Your task to perform on an android device: Clear all items from cart on amazon. Add razer naga to the cart on amazon Image 0: 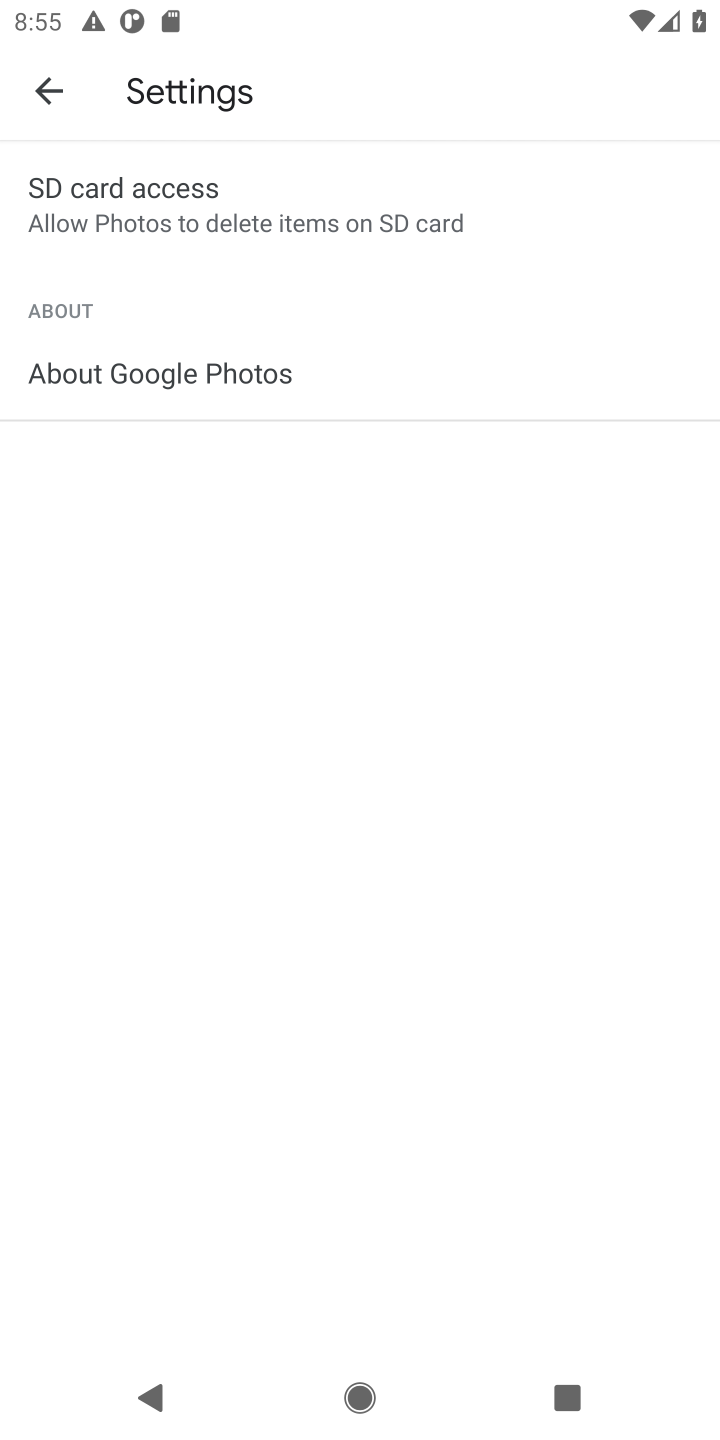
Step 0: press home button
Your task to perform on an android device: Clear all items from cart on amazon. Add razer naga to the cart on amazon Image 1: 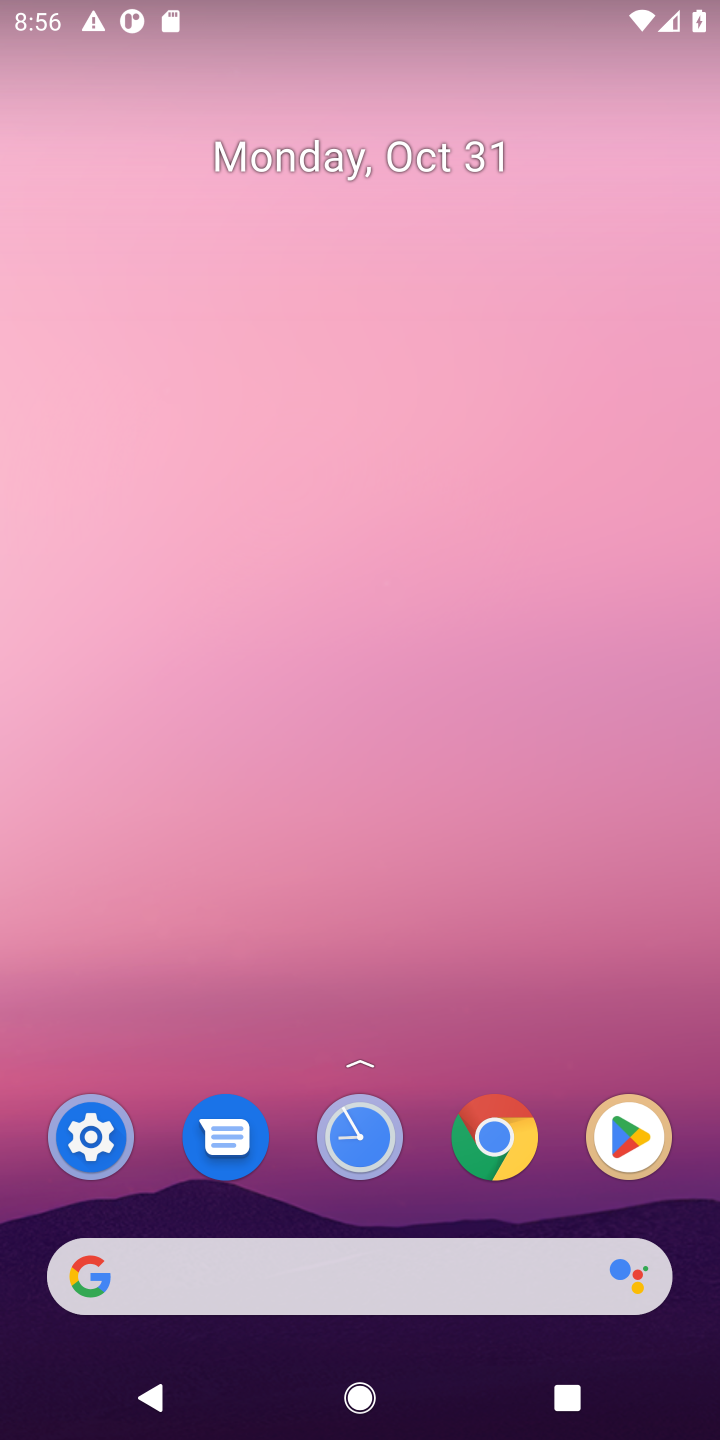
Step 1: click (477, 1131)
Your task to perform on an android device: Clear all items from cart on amazon. Add razer naga to the cart on amazon Image 2: 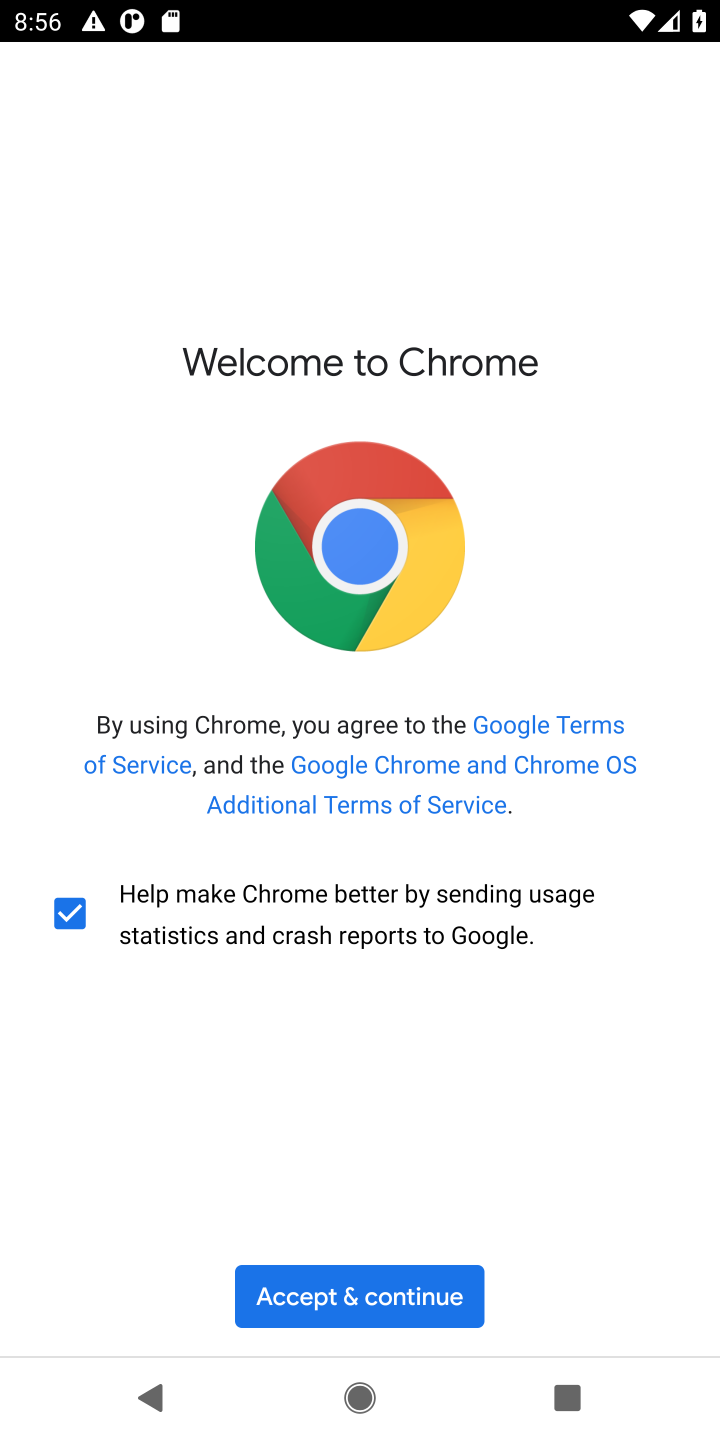
Step 2: click (348, 1312)
Your task to perform on an android device: Clear all items from cart on amazon. Add razer naga to the cart on amazon Image 3: 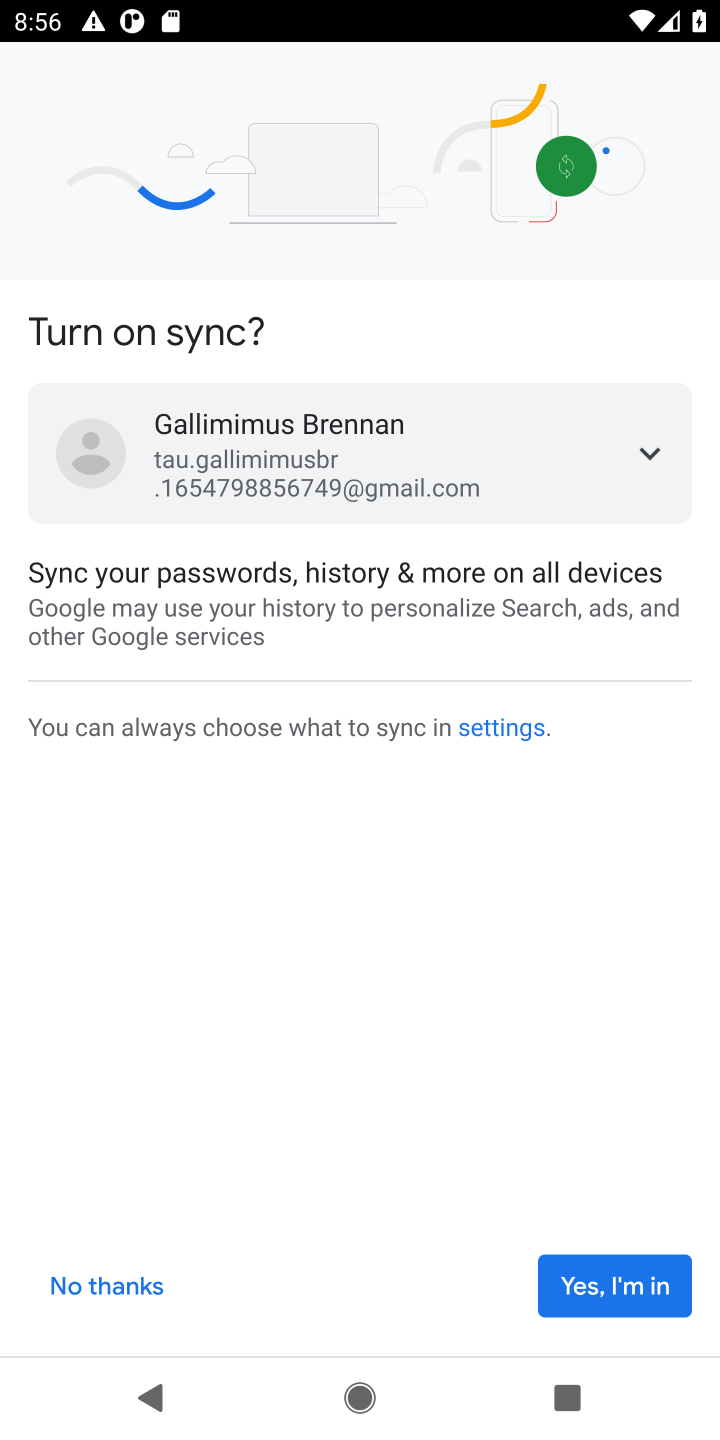
Step 3: click (617, 1292)
Your task to perform on an android device: Clear all items from cart on amazon. Add razer naga to the cart on amazon Image 4: 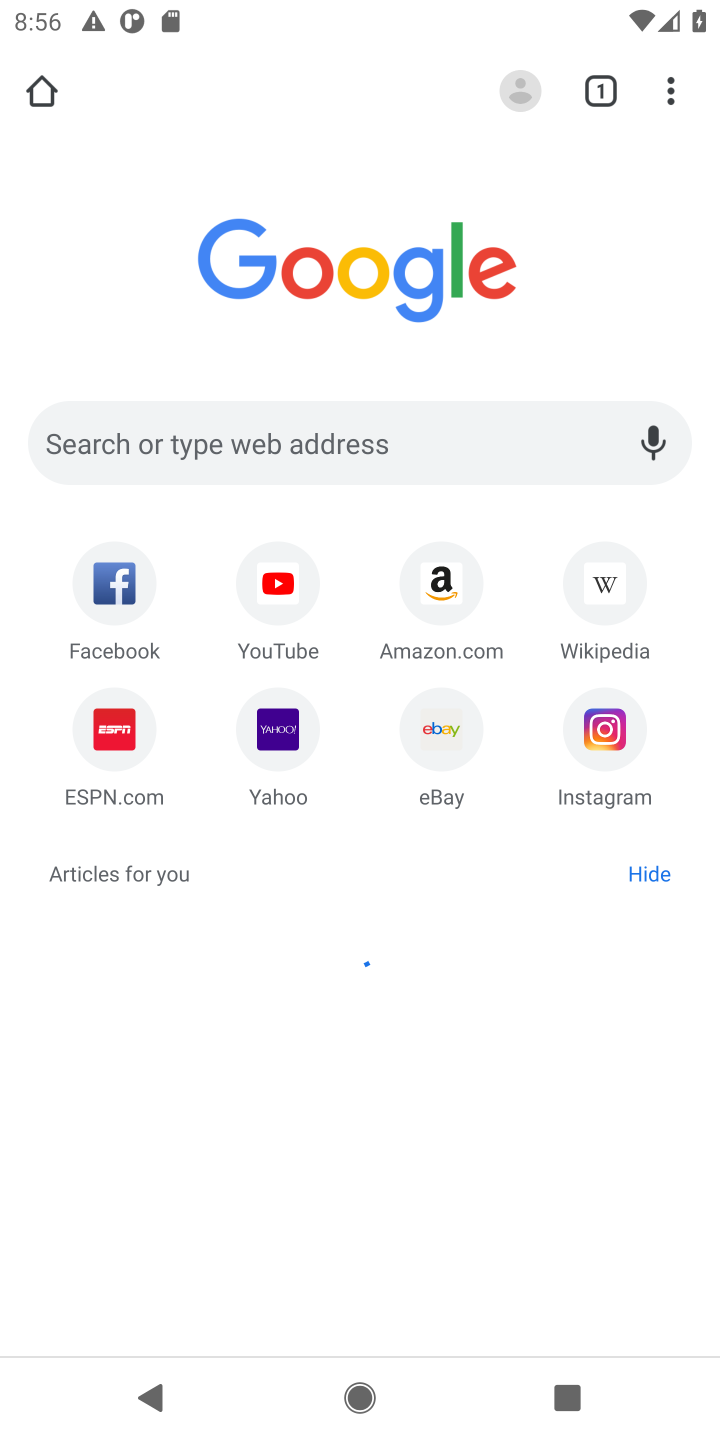
Step 4: click (433, 590)
Your task to perform on an android device: Clear all items from cart on amazon. Add razer naga to the cart on amazon Image 5: 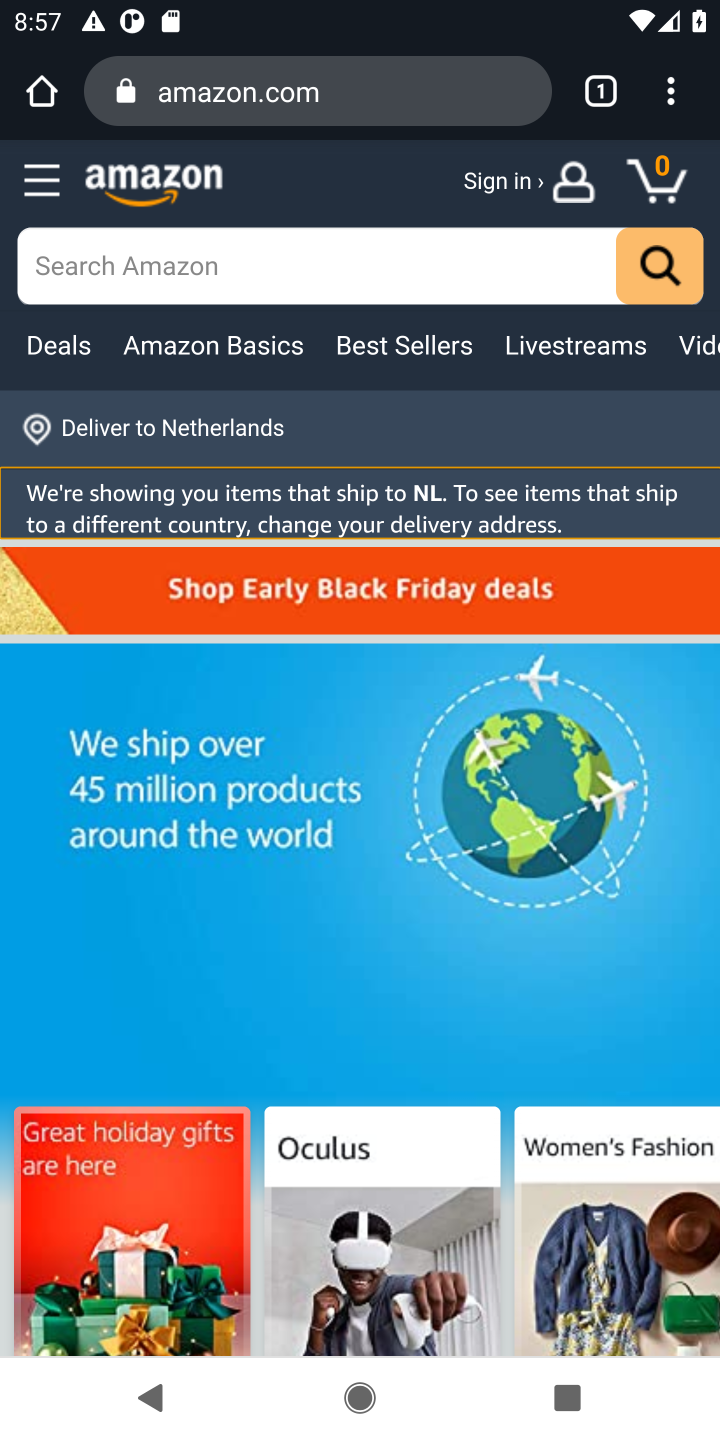
Step 5: click (263, 259)
Your task to perform on an android device: Clear all items from cart on amazon. Add razer naga to the cart on amazon Image 6: 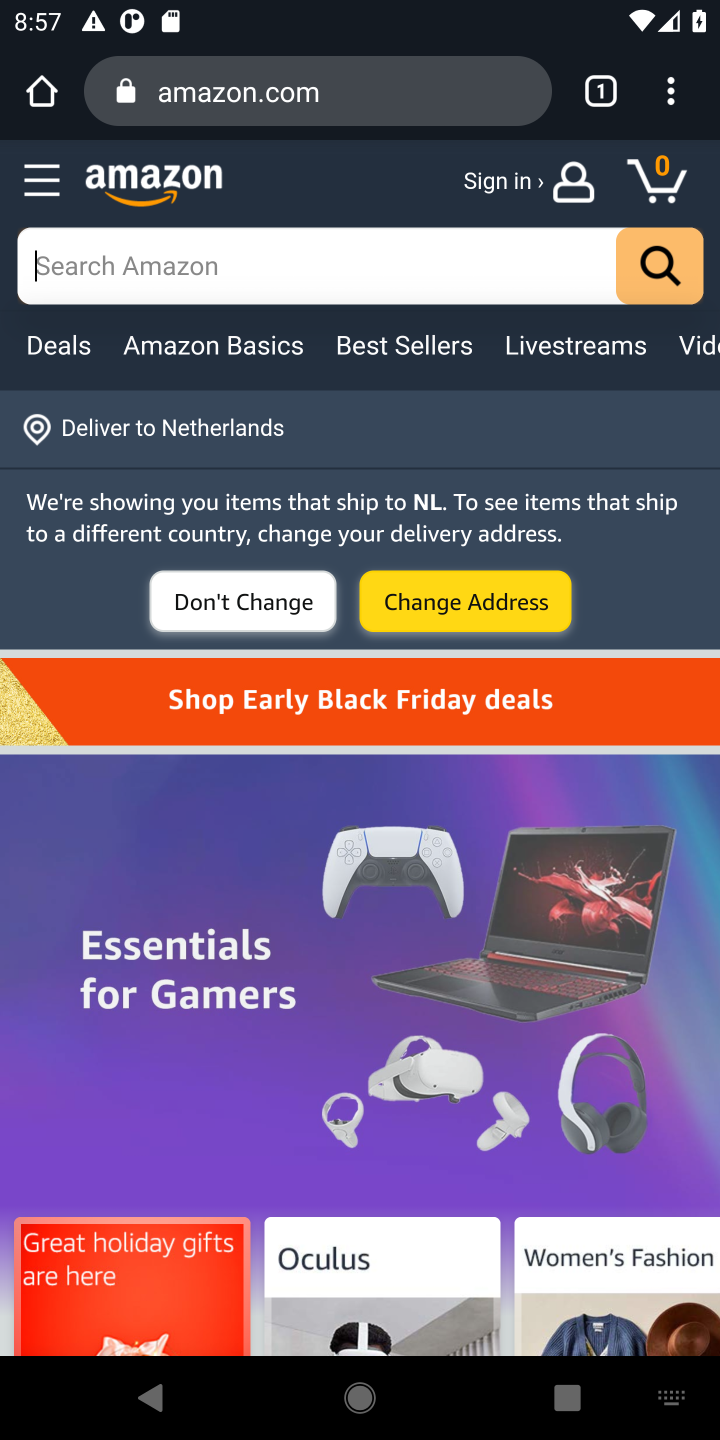
Step 6: click (286, 274)
Your task to perform on an android device: Clear all items from cart on amazon. Add razer naga to the cart on amazon Image 7: 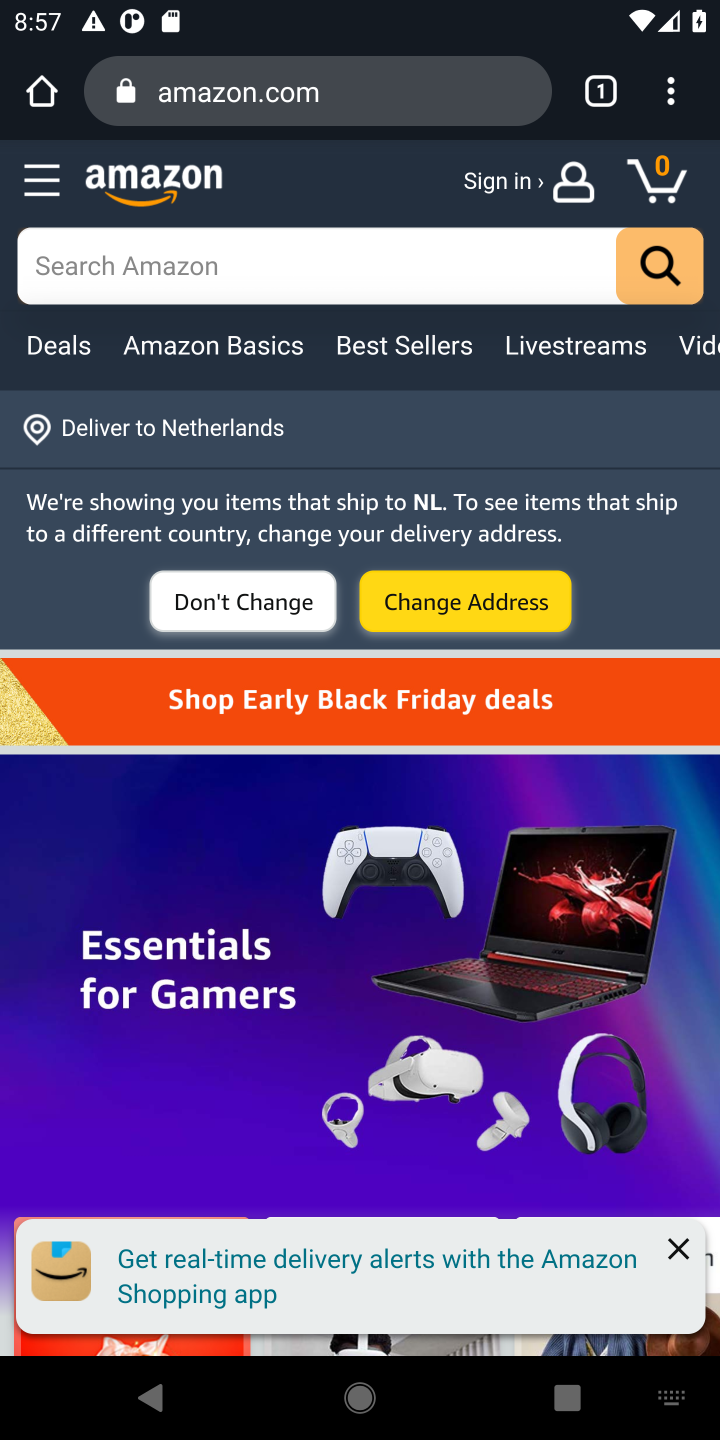
Step 7: type "razer naga"
Your task to perform on an android device: Clear all items from cart on amazon. Add razer naga to the cart on amazon Image 8: 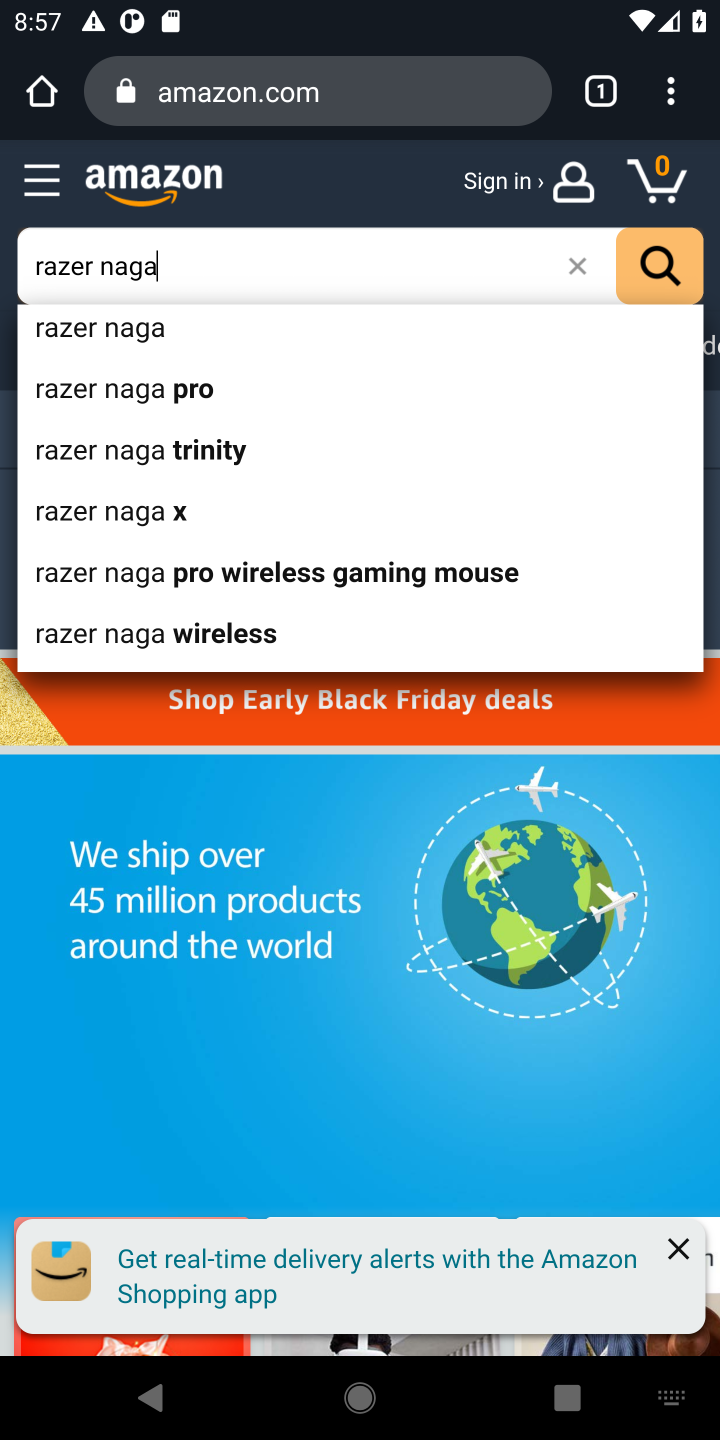
Step 8: click (136, 329)
Your task to perform on an android device: Clear all items from cart on amazon. Add razer naga to the cart on amazon Image 9: 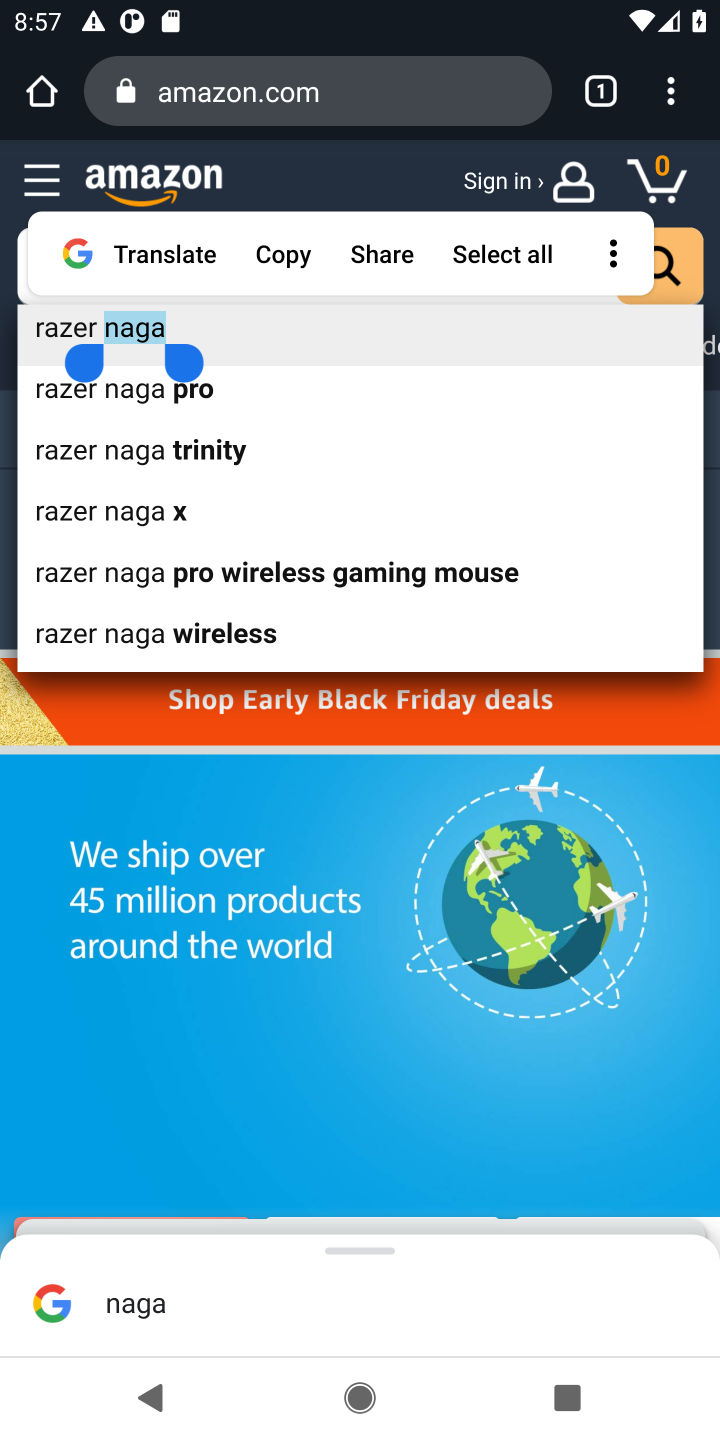
Step 9: click (63, 334)
Your task to perform on an android device: Clear all items from cart on amazon. Add razer naga to the cart on amazon Image 10: 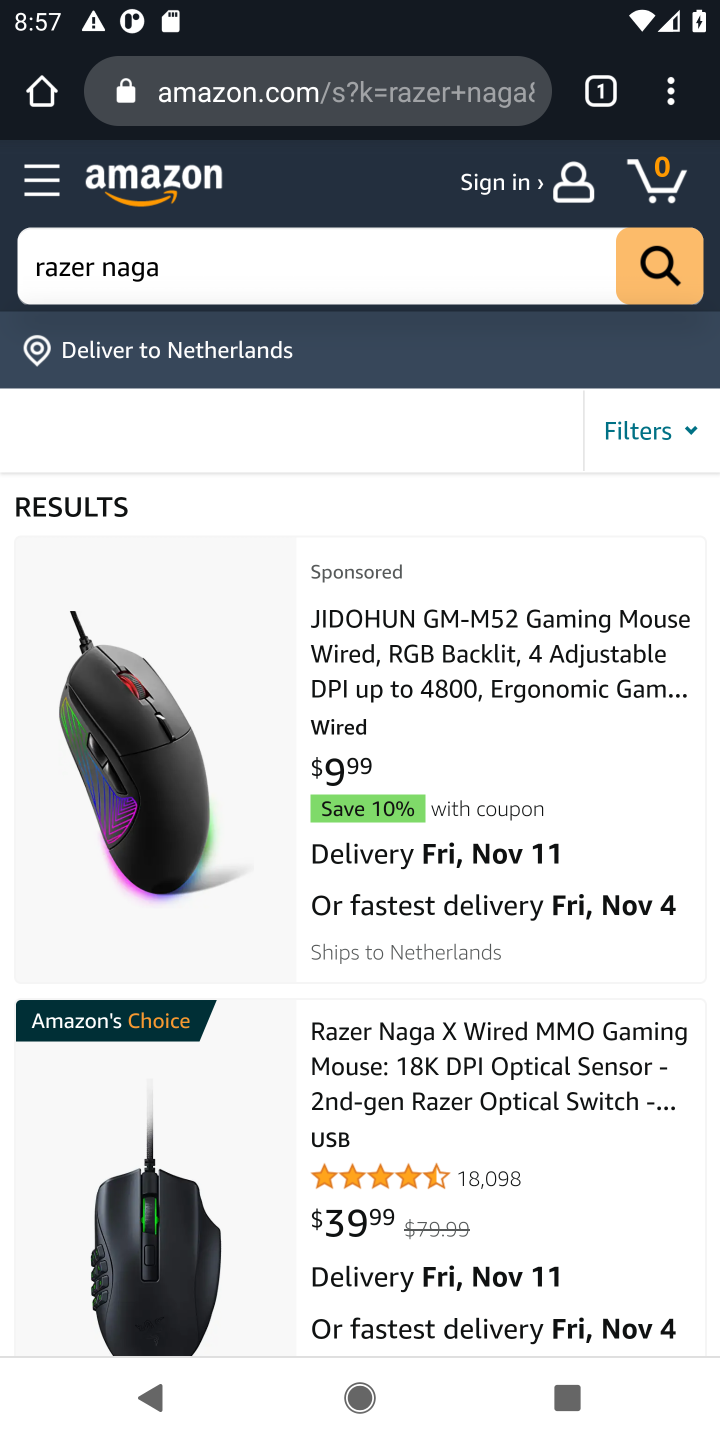
Step 10: click (187, 1254)
Your task to perform on an android device: Clear all items from cart on amazon. Add razer naga to the cart on amazon Image 11: 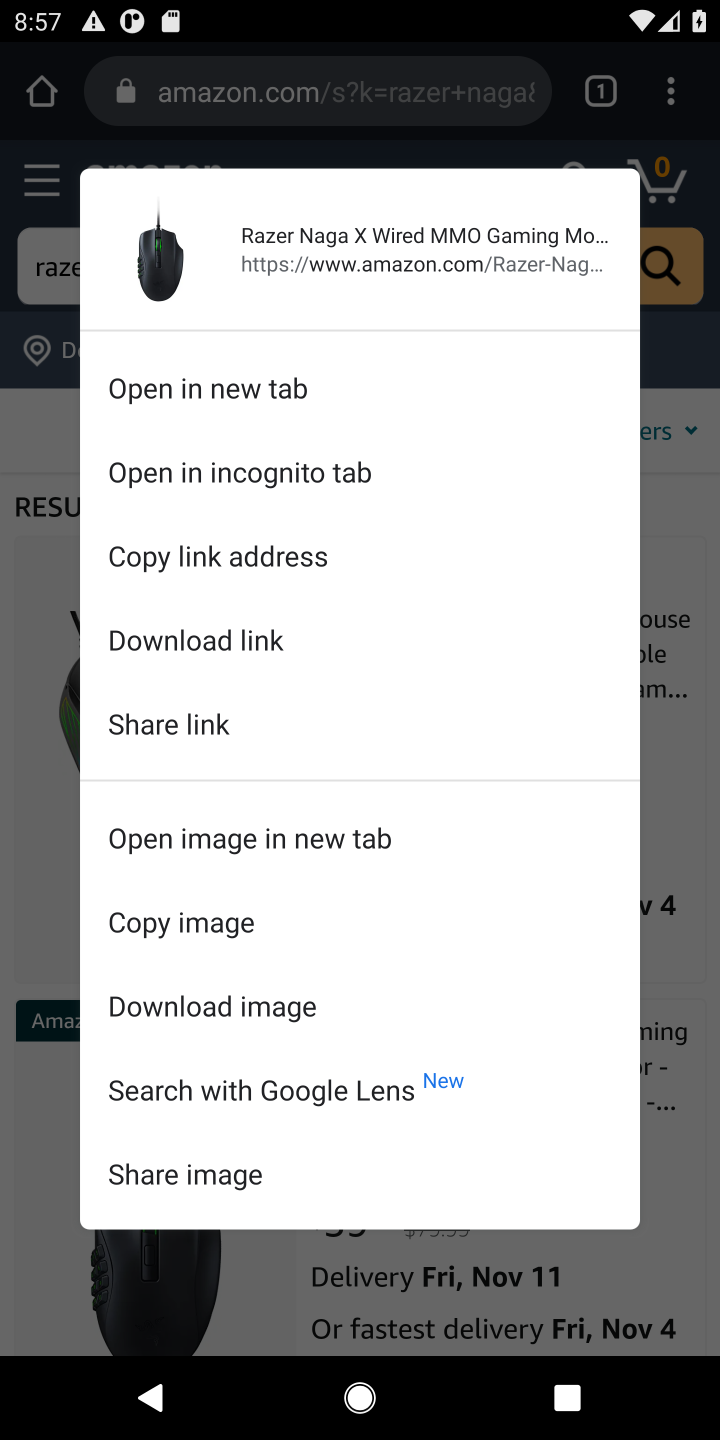
Step 11: click (187, 1254)
Your task to perform on an android device: Clear all items from cart on amazon. Add razer naga to the cart on amazon Image 12: 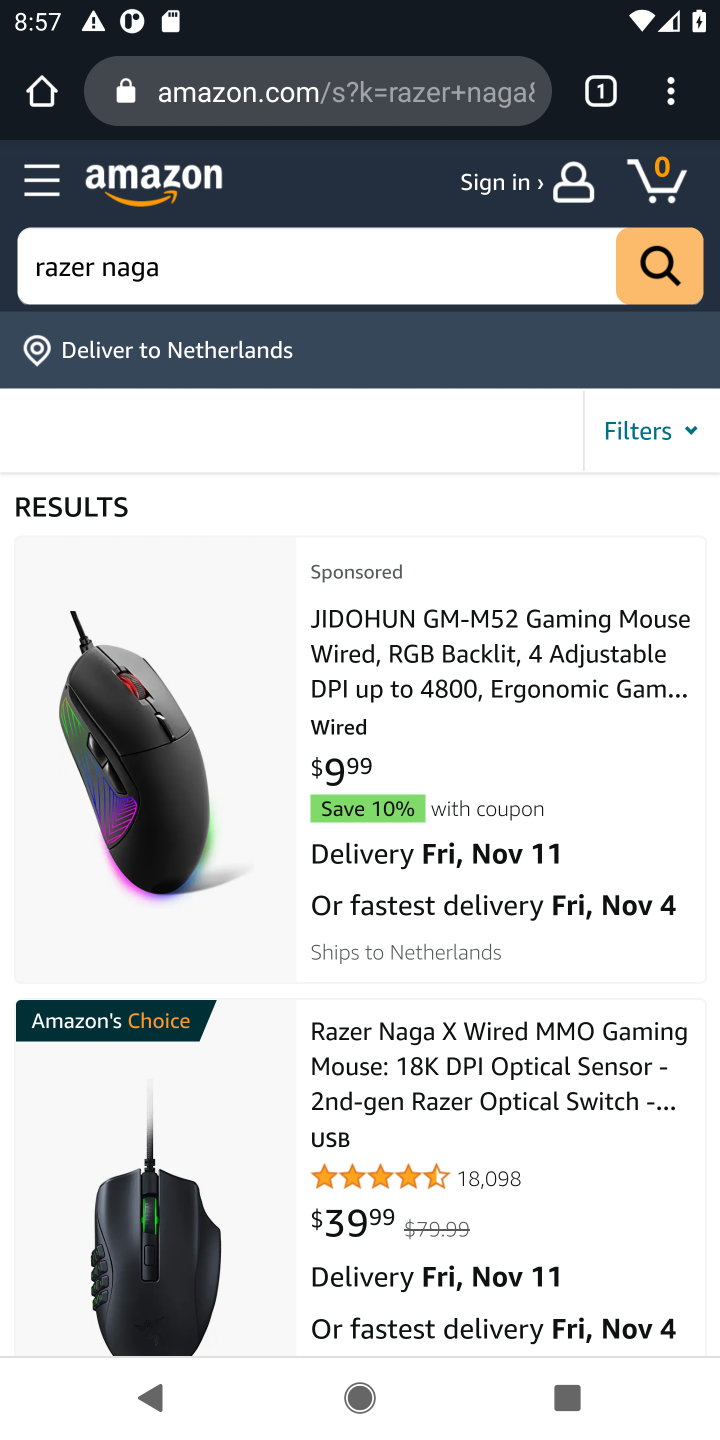
Step 12: drag from (293, 1181) to (289, 641)
Your task to perform on an android device: Clear all items from cart on amazon. Add razer naga to the cart on amazon Image 13: 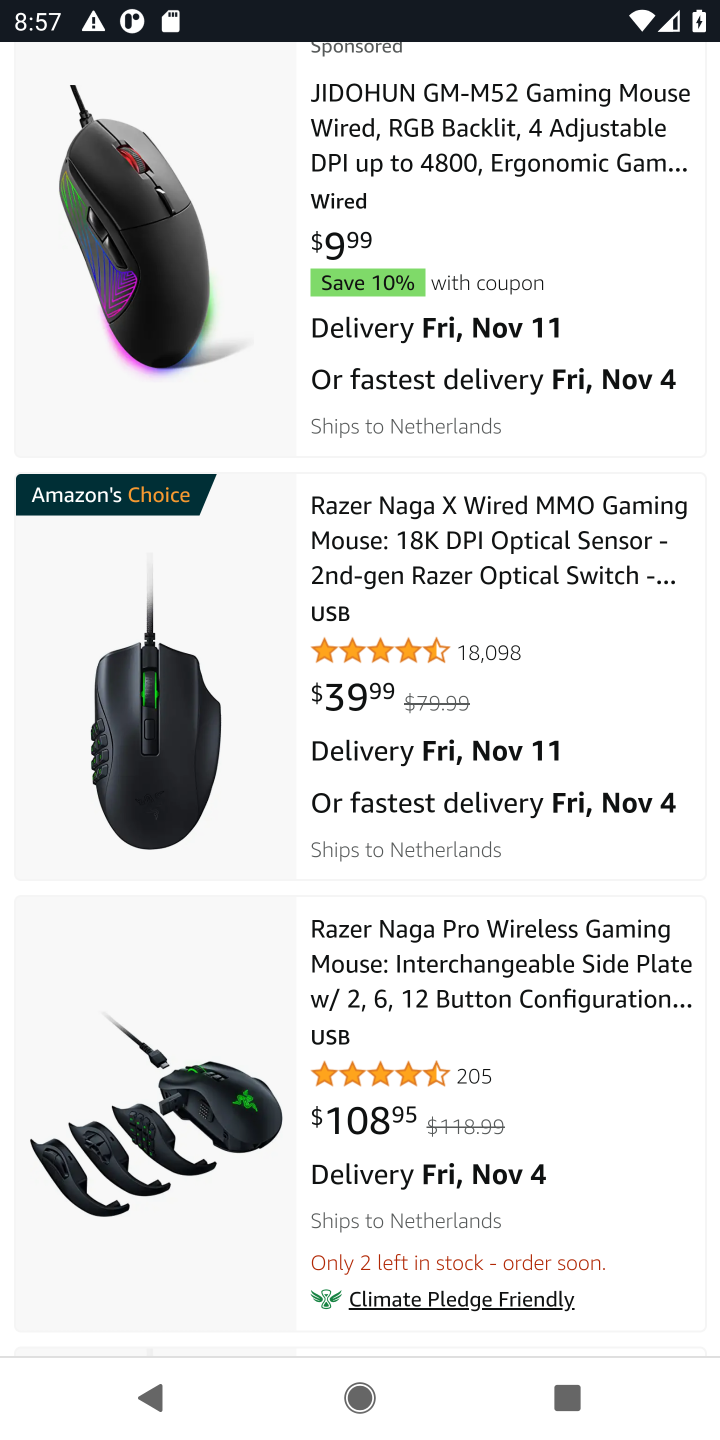
Step 13: click (407, 748)
Your task to perform on an android device: Clear all items from cart on amazon. Add razer naga to the cart on amazon Image 14: 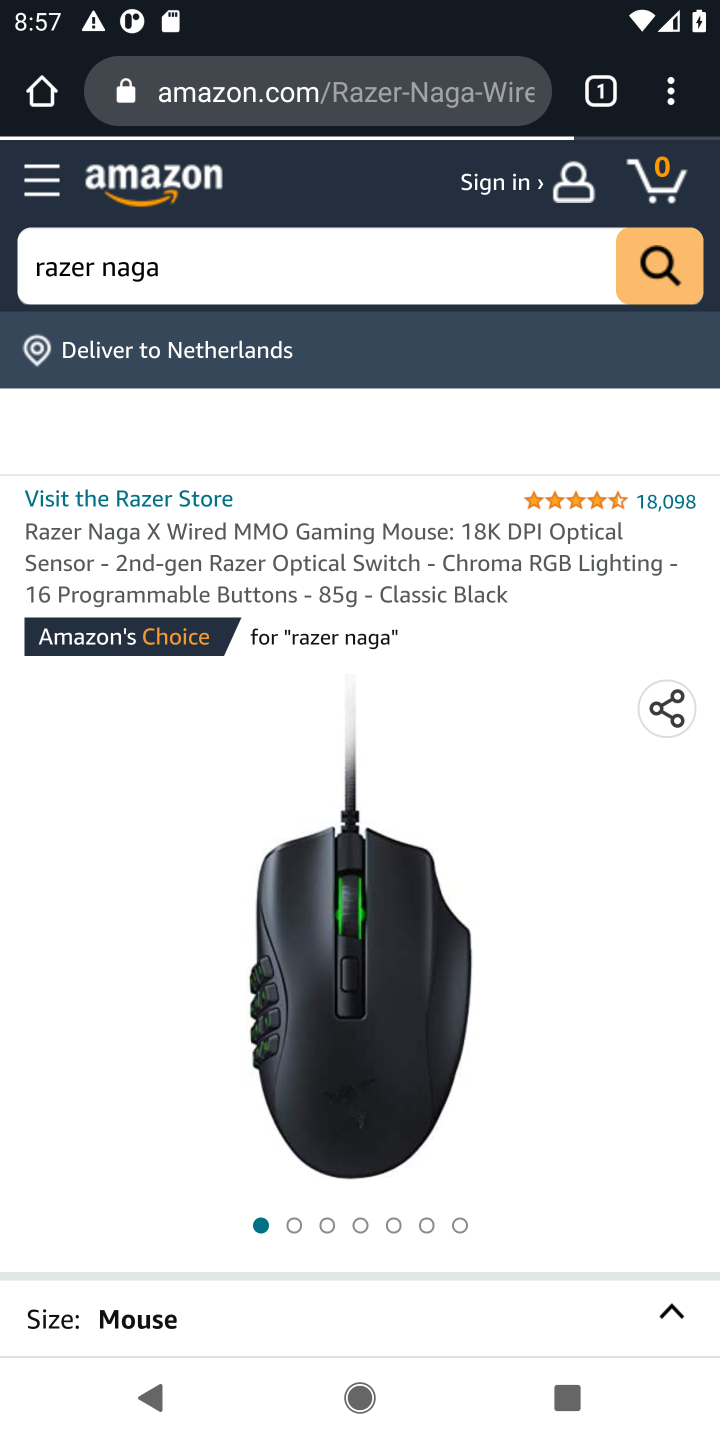
Step 14: drag from (574, 1121) to (549, 420)
Your task to perform on an android device: Clear all items from cart on amazon. Add razer naga to the cart on amazon Image 15: 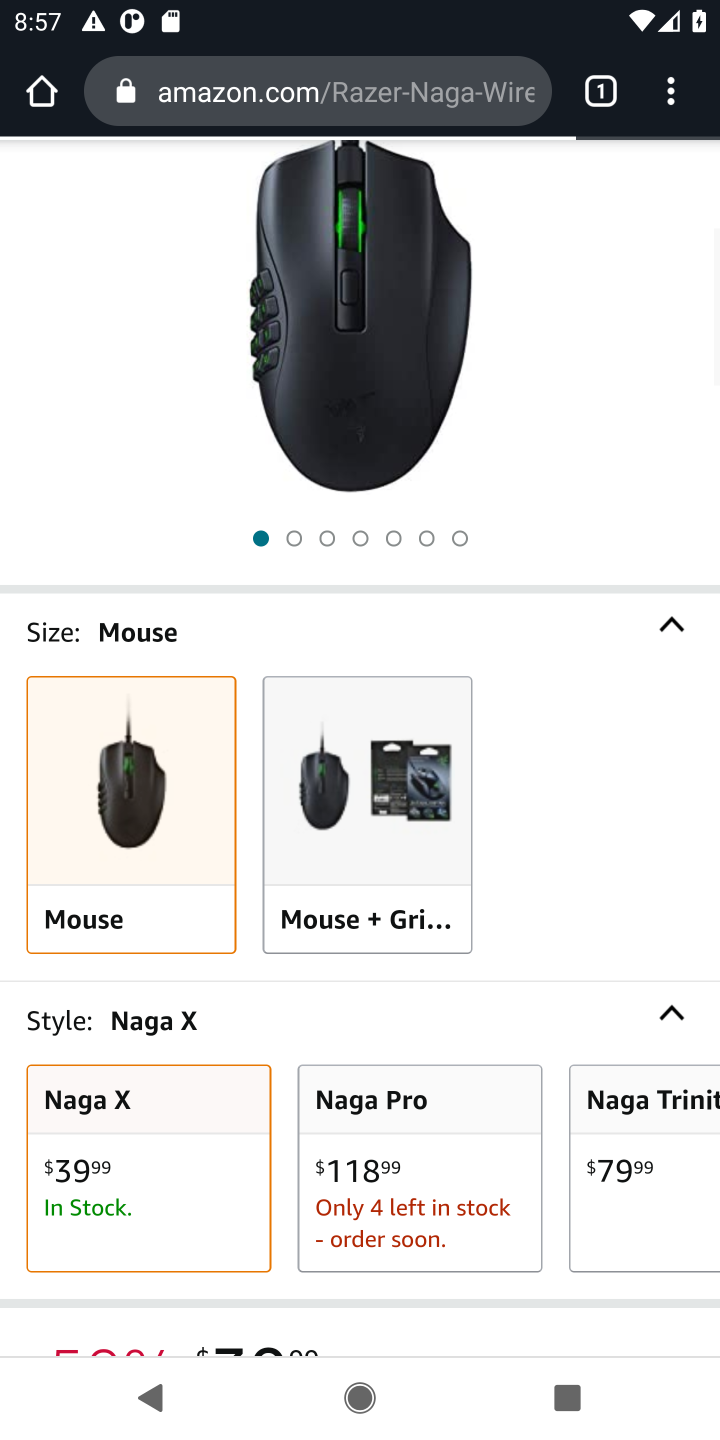
Step 15: drag from (371, 1065) to (398, 494)
Your task to perform on an android device: Clear all items from cart on amazon. Add razer naga to the cart on amazon Image 16: 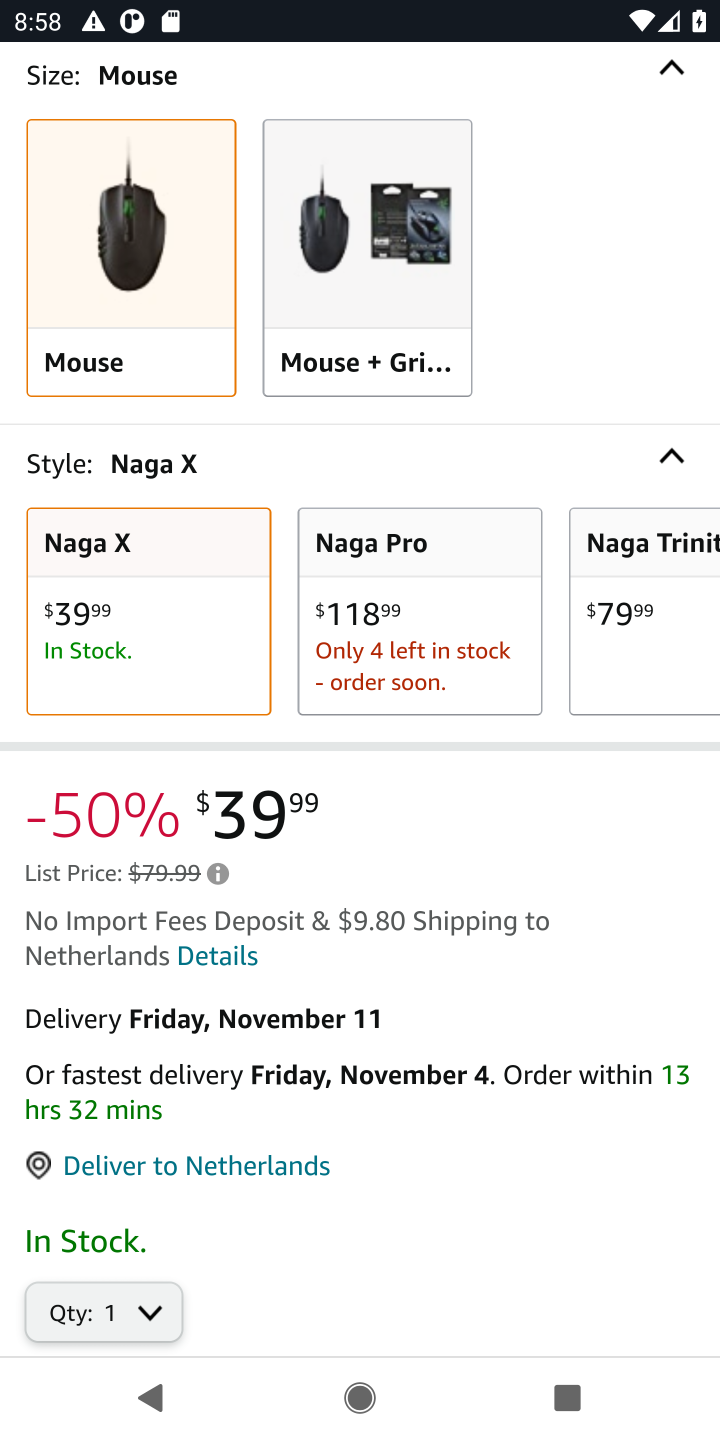
Step 16: drag from (351, 1116) to (361, 530)
Your task to perform on an android device: Clear all items from cart on amazon. Add razer naga to the cart on amazon Image 17: 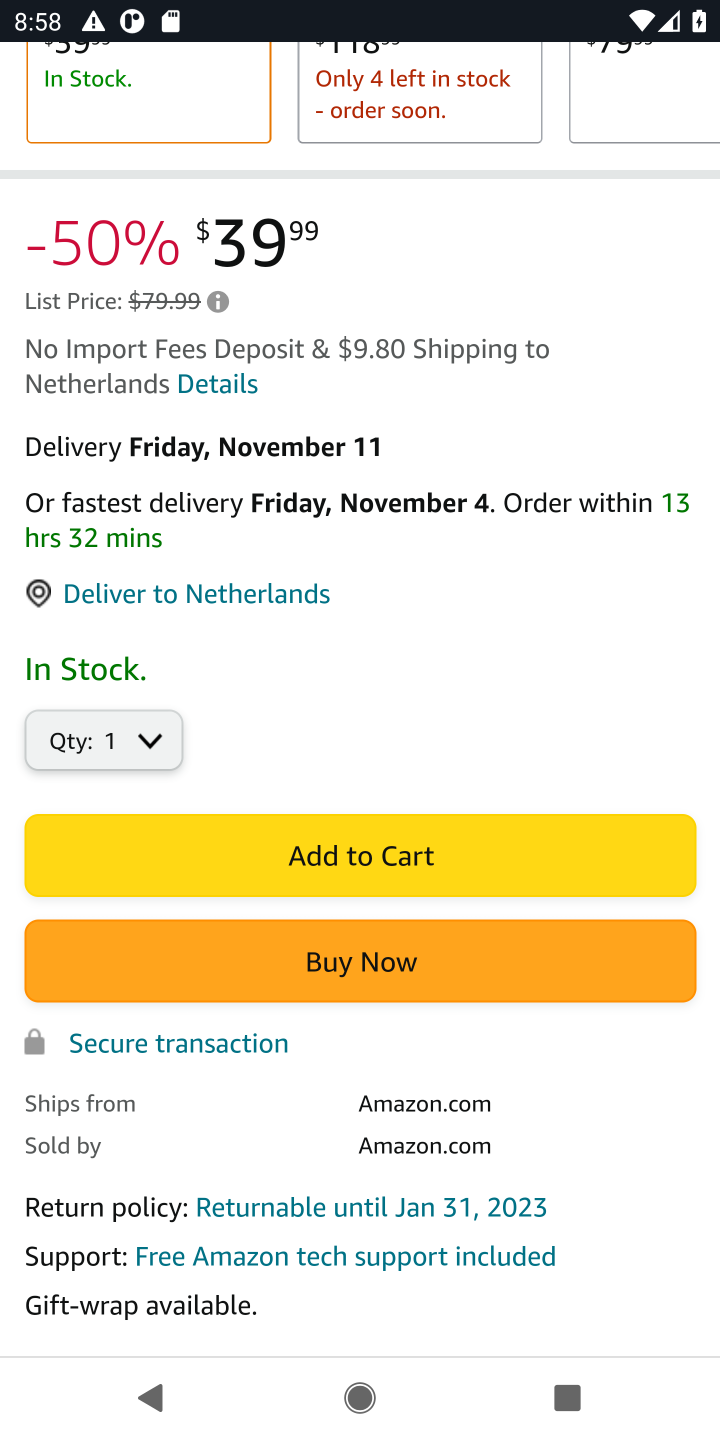
Step 17: click (319, 849)
Your task to perform on an android device: Clear all items from cart on amazon. Add razer naga to the cart on amazon Image 18: 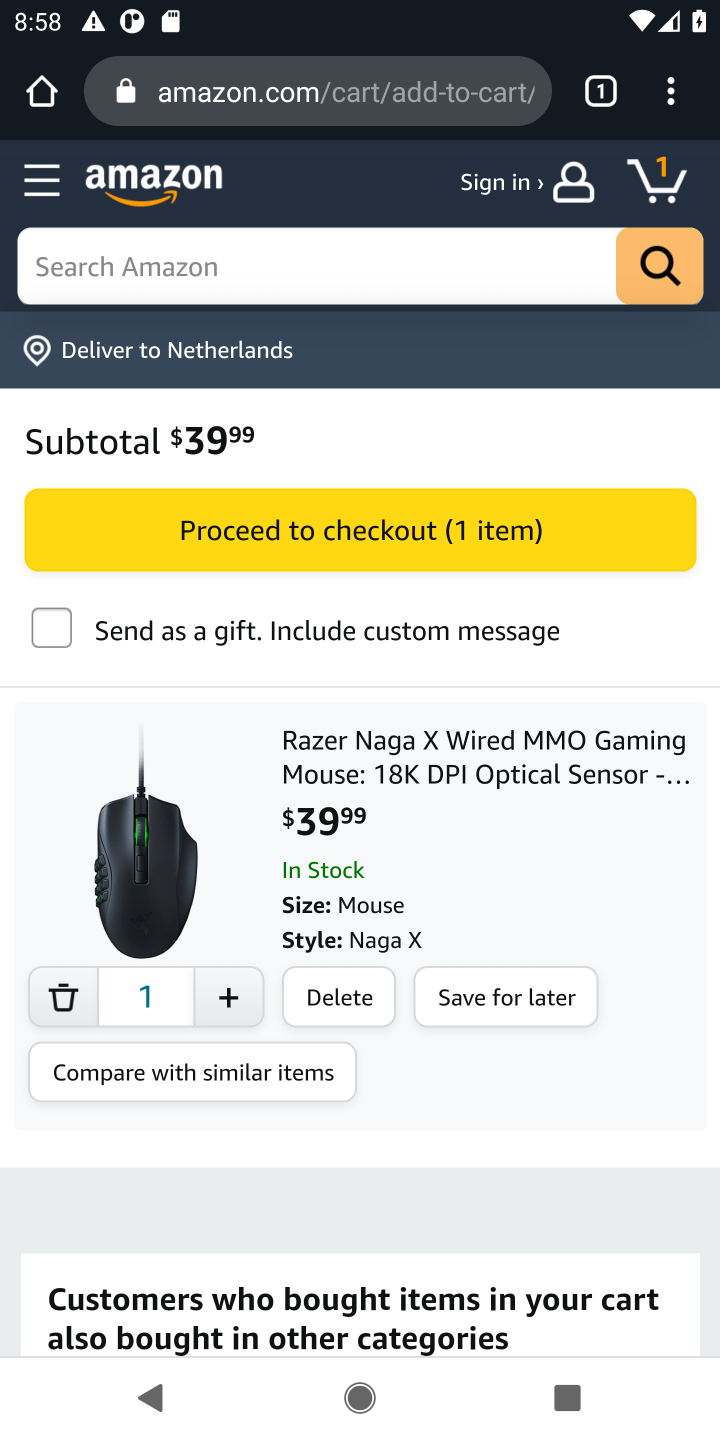
Step 18: task complete